Your task to perform on an android device: snooze an email in the gmail app Image 0: 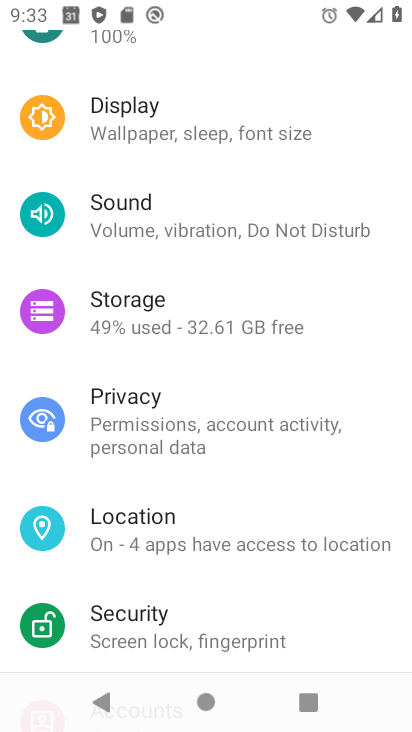
Step 0: press home button
Your task to perform on an android device: snooze an email in the gmail app Image 1: 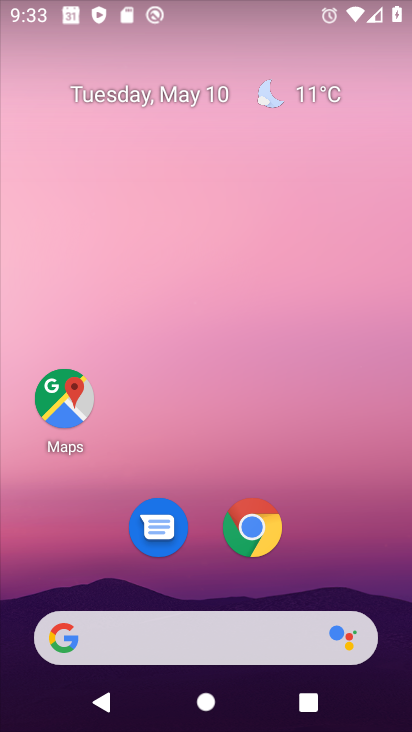
Step 1: drag from (350, 476) to (300, 106)
Your task to perform on an android device: snooze an email in the gmail app Image 2: 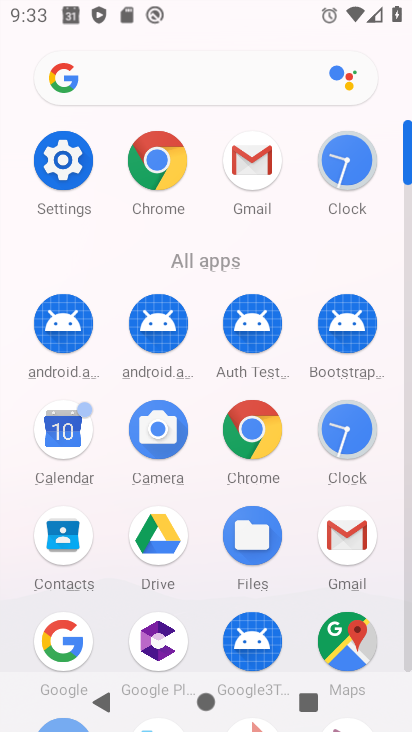
Step 2: click (248, 184)
Your task to perform on an android device: snooze an email in the gmail app Image 3: 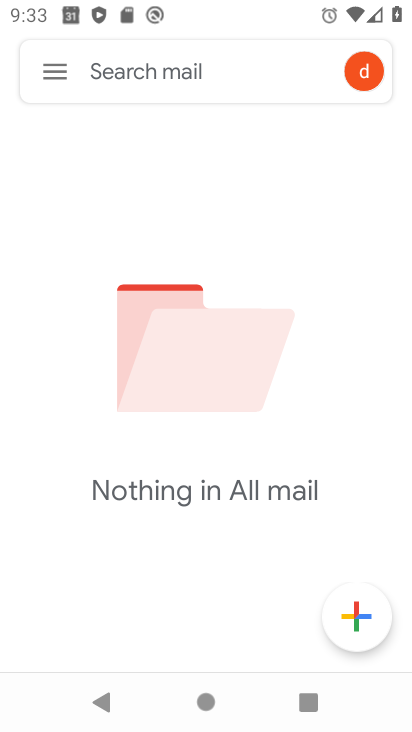
Step 3: click (61, 90)
Your task to perform on an android device: snooze an email in the gmail app Image 4: 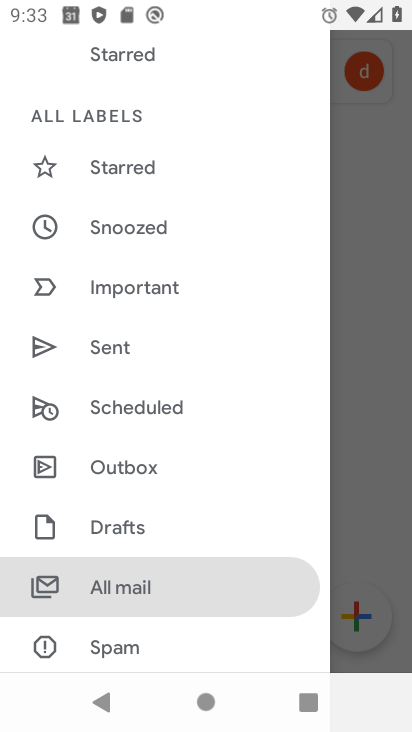
Step 4: task complete